Your task to perform on an android device: Open internet settings Image 0: 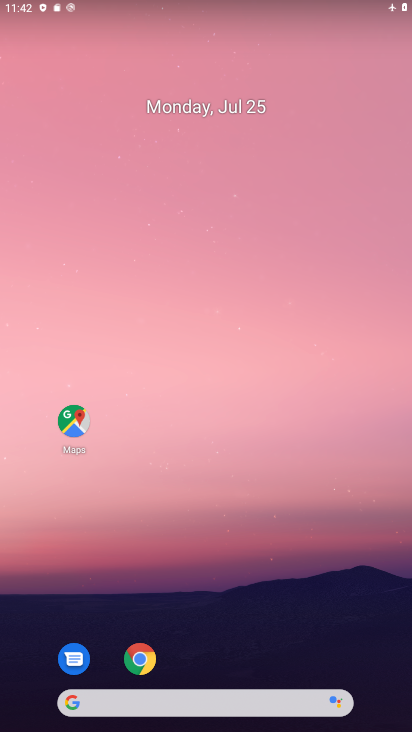
Step 0: press home button
Your task to perform on an android device: Open internet settings Image 1: 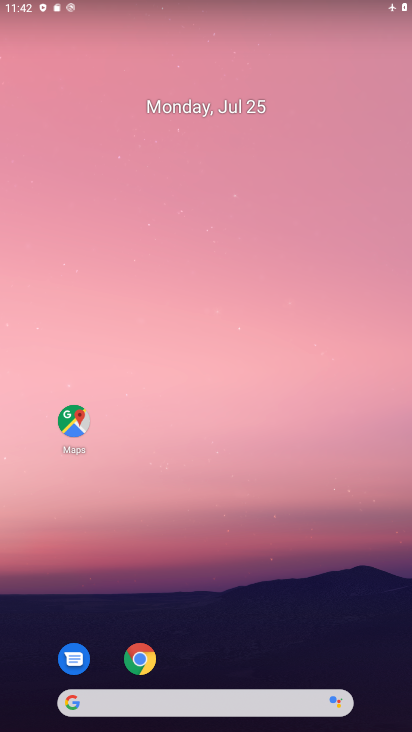
Step 1: drag from (347, 585) to (0, 507)
Your task to perform on an android device: Open internet settings Image 2: 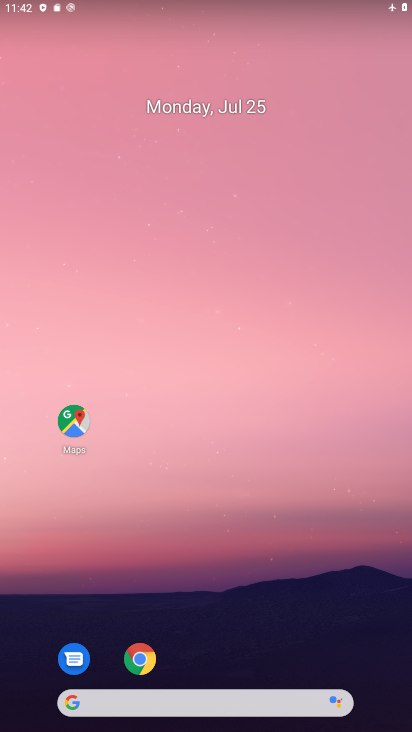
Step 2: drag from (297, 696) to (214, 75)
Your task to perform on an android device: Open internet settings Image 3: 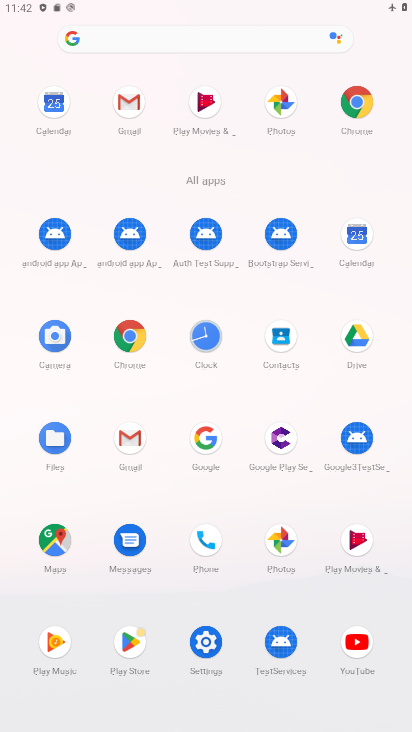
Step 3: click (222, 632)
Your task to perform on an android device: Open internet settings Image 4: 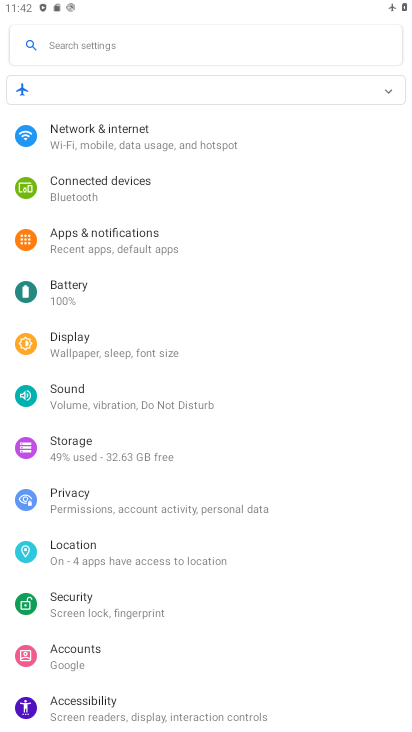
Step 4: click (51, 148)
Your task to perform on an android device: Open internet settings Image 5: 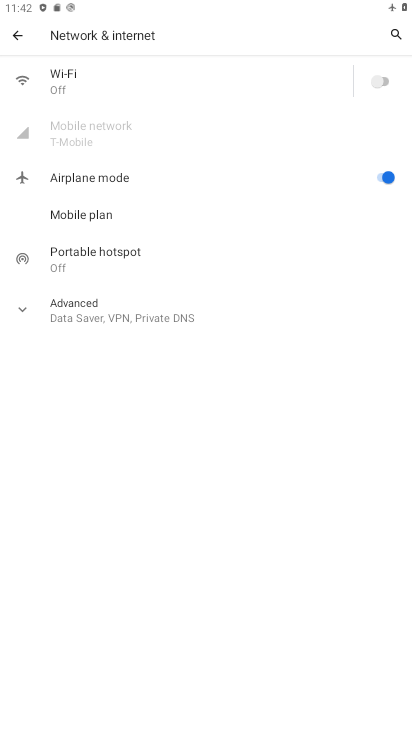
Step 5: task complete